Your task to perform on an android device: Go to Maps Image 0: 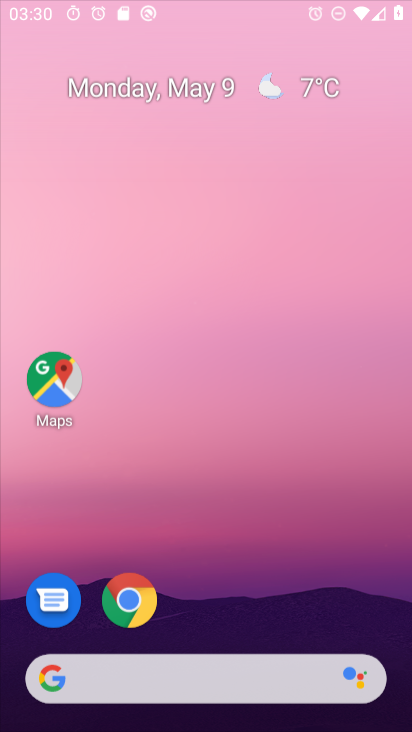
Step 0: click (210, 121)
Your task to perform on an android device: Go to Maps Image 1: 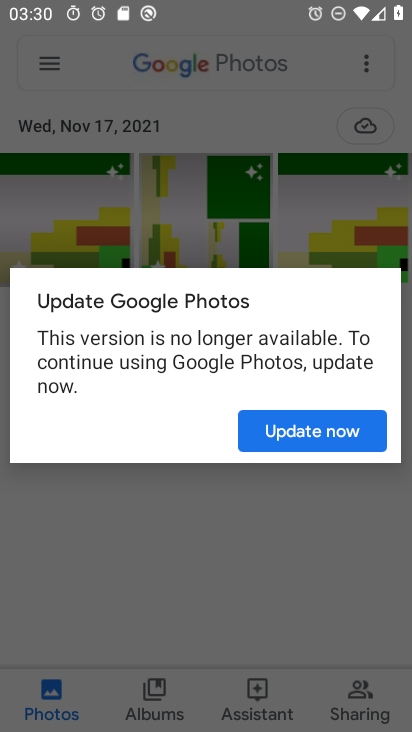
Step 1: press home button
Your task to perform on an android device: Go to Maps Image 2: 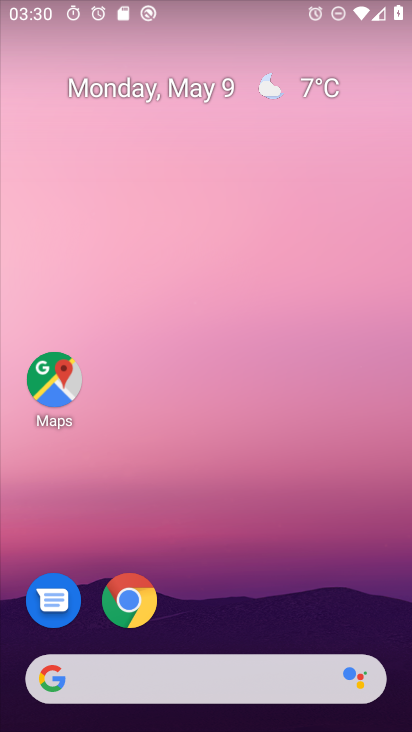
Step 2: drag from (169, 686) to (145, 158)
Your task to perform on an android device: Go to Maps Image 3: 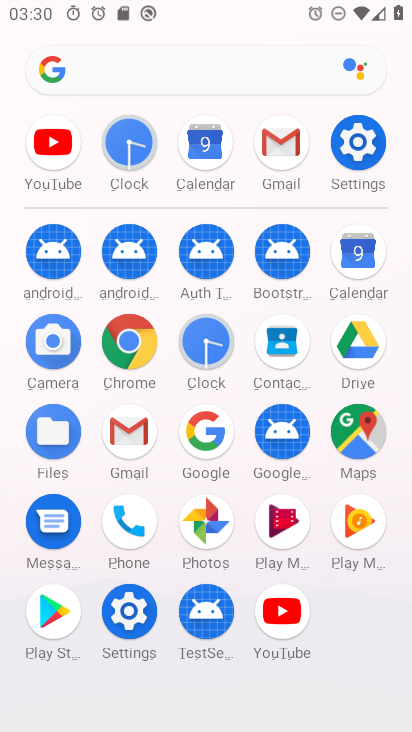
Step 3: click (366, 422)
Your task to perform on an android device: Go to Maps Image 4: 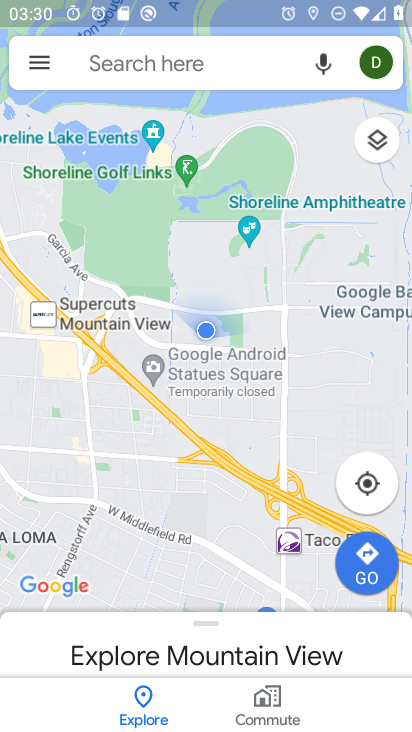
Step 4: task complete